Your task to perform on an android device: Search for vegetarian restaurants on Maps Image 0: 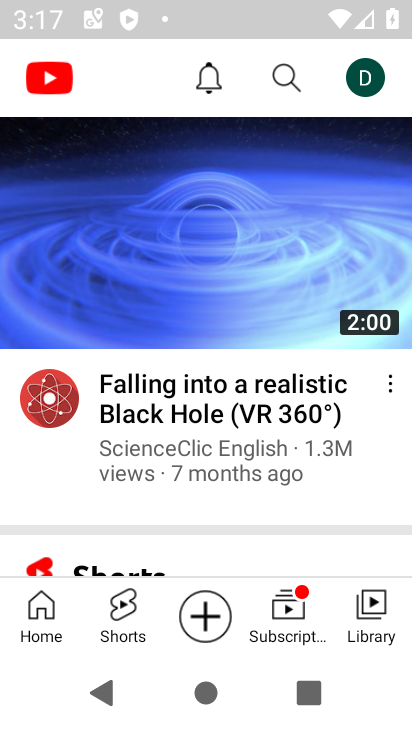
Step 0: press back button
Your task to perform on an android device: Search for vegetarian restaurants on Maps Image 1: 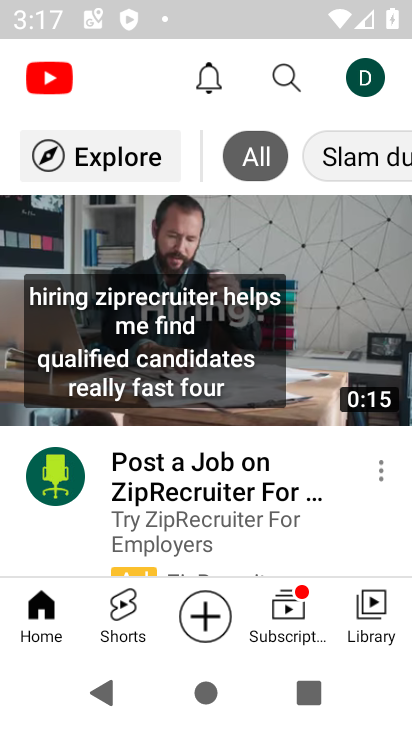
Step 1: press back button
Your task to perform on an android device: Search for vegetarian restaurants on Maps Image 2: 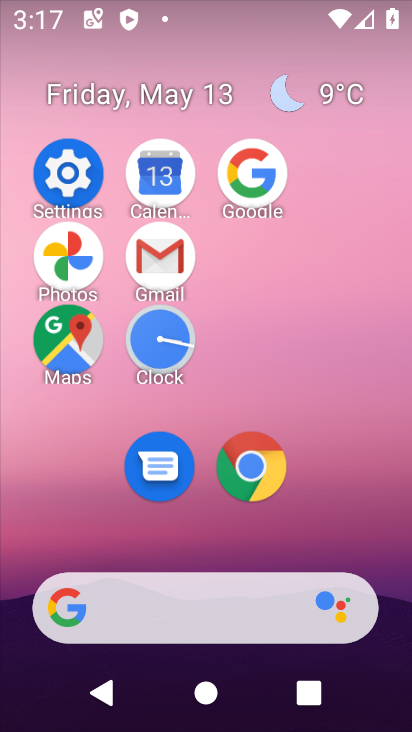
Step 2: click (92, 348)
Your task to perform on an android device: Search for vegetarian restaurants on Maps Image 3: 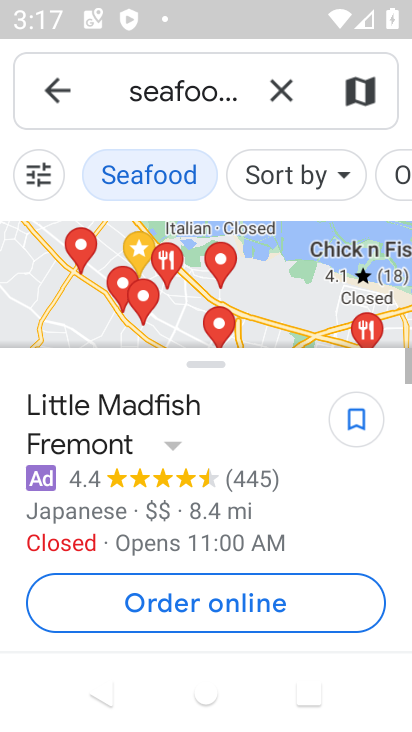
Step 3: click (291, 83)
Your task to perform on an android device: Search for vegetarian restaurants on Maps Image 4: 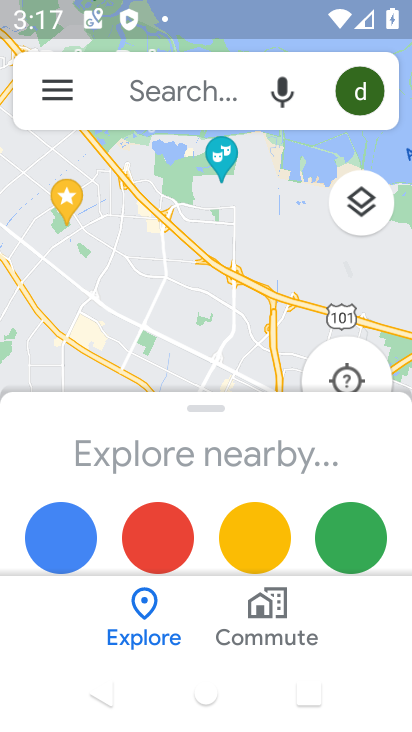
Step 4: click (197, 103)
Your task to perform on an android device: Search for vegetarian restaurants on Maps Image 5: 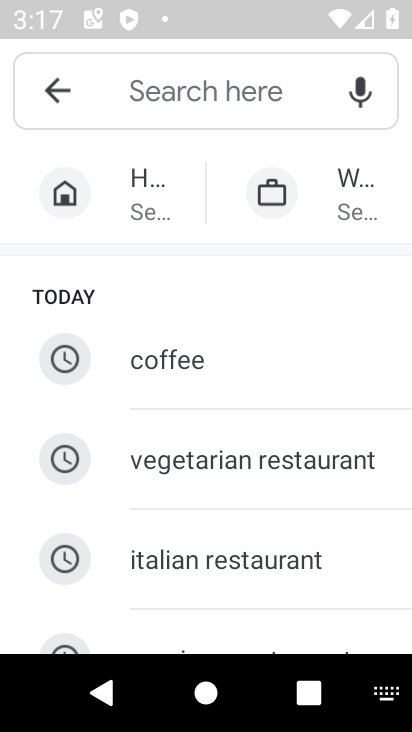
Step 5: click (243, 461)
Your task to perform on an android device: Search for vegetarian restaurants on Maps Image 6: 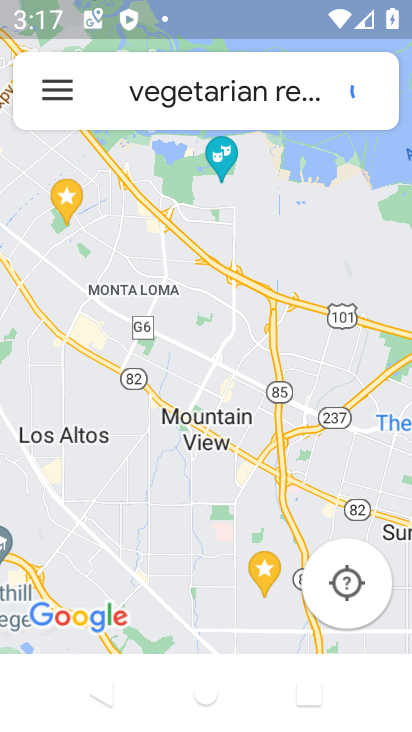
Step 6: task complete